Your task to perform on an android device: Go to Maps Image 0: 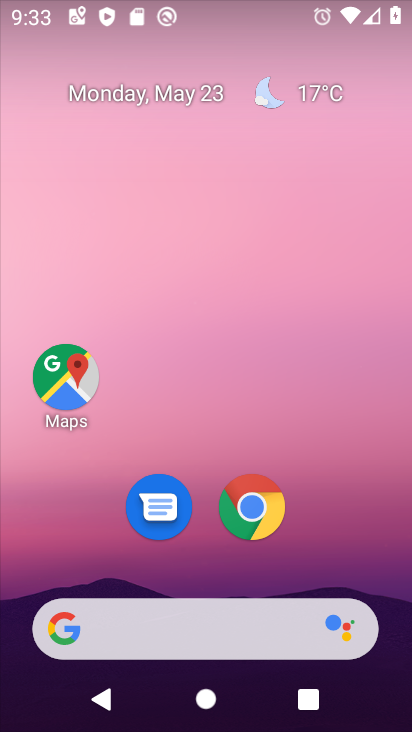
Step 0: click (61, 390)
Your task to perform on an android device: Go to Maps Image 1: 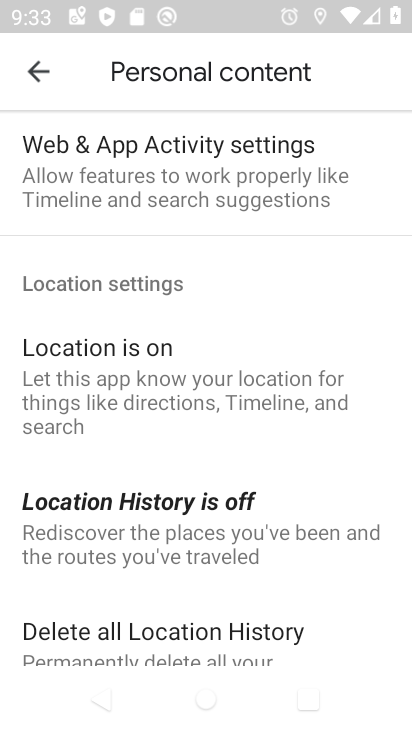
Step 1: click (42, 85)
Your task to perform on an android device: Go to Maps Image 2: 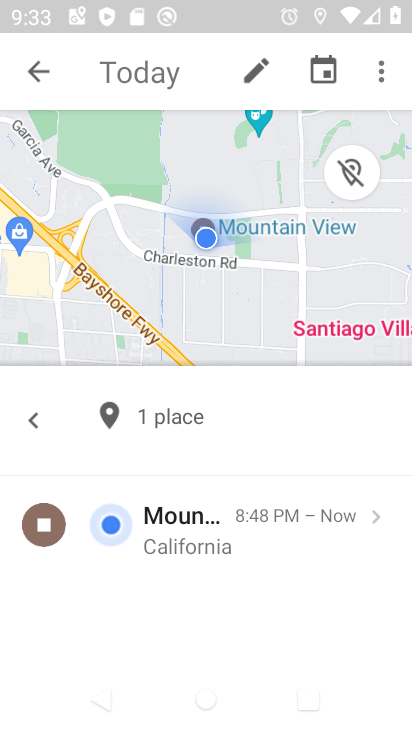
Step 2: task complete